Your task to perform on an android device: turn on priority inbox in the gmail app Image 0: 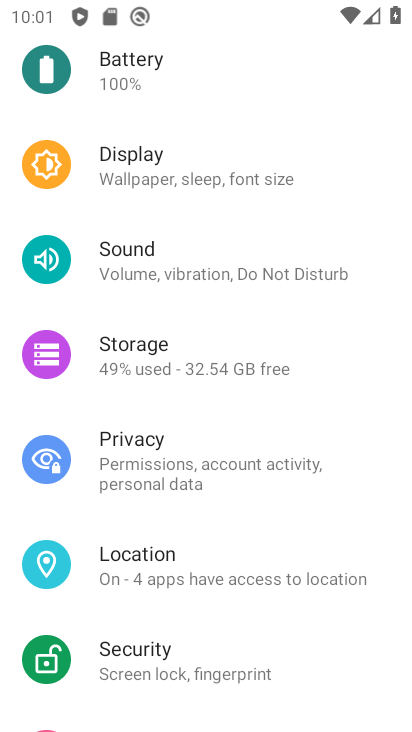
Step 0: press home button
Your task to perform on an android device: turn on priority inbox in the gmail app Image 1: 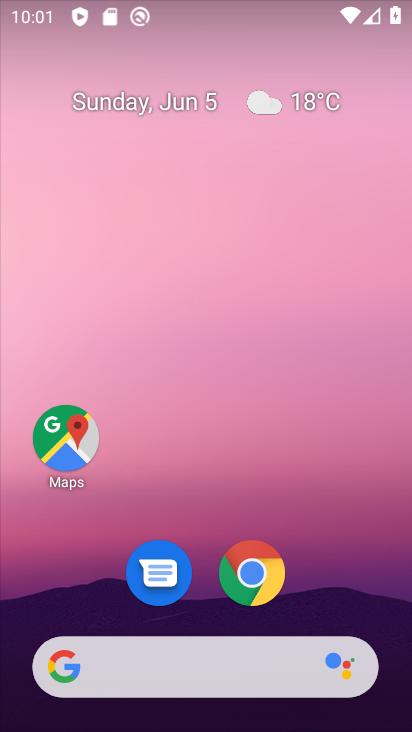
Step 1: drag from (202, 620) to (222, 255)
Your task to perform on an android device: turn on priority inbox in the gmail app Image 2: 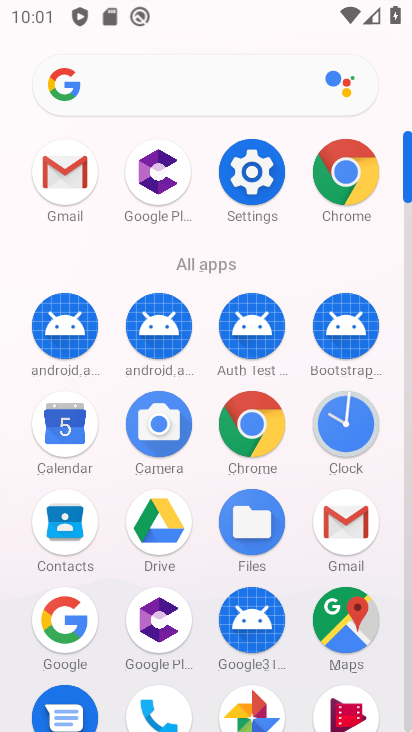
Step 2: click (338, 545)
Your task to perform on an android device: turn on priority inbox in the gmail app Image 3: 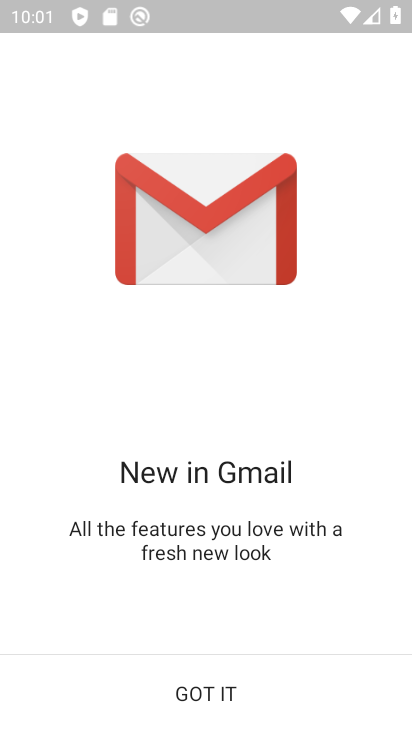
Step 3: click (205, 707)
Your task to perform on an android device: turn on priority inbox in the gmail app Image 4: 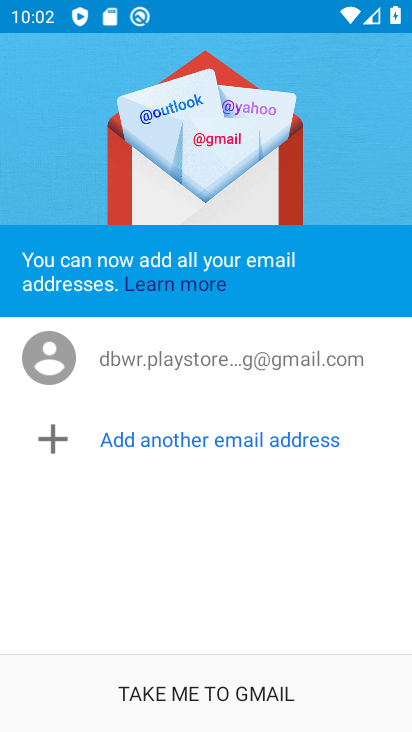
Step 4: click (187, 685)
Your task to perform on an android device: turn on priority inbox in the gmail app Image 5: 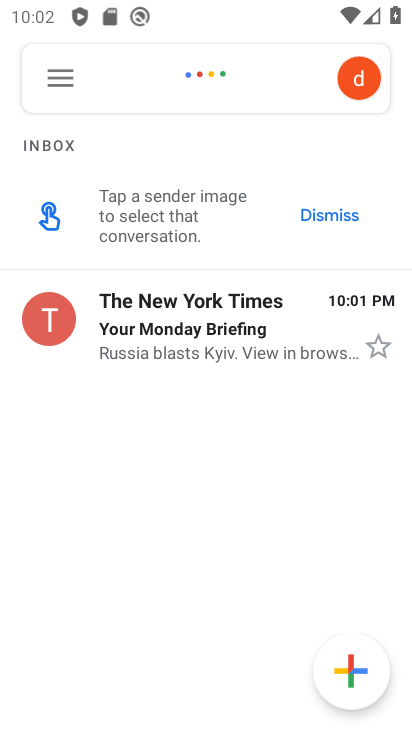
Step 5: click (56, 84)
Your task to perform on an android device: turn on priority inbox in the gmail app Image 6: 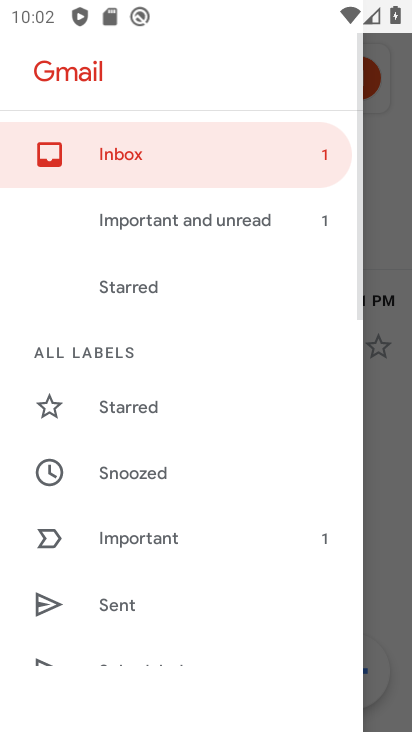
Step 6: drag from (124, 620) to (131, 200)
Your task to perform on an android device: turn on priority inbox in the gmail app Image 7: 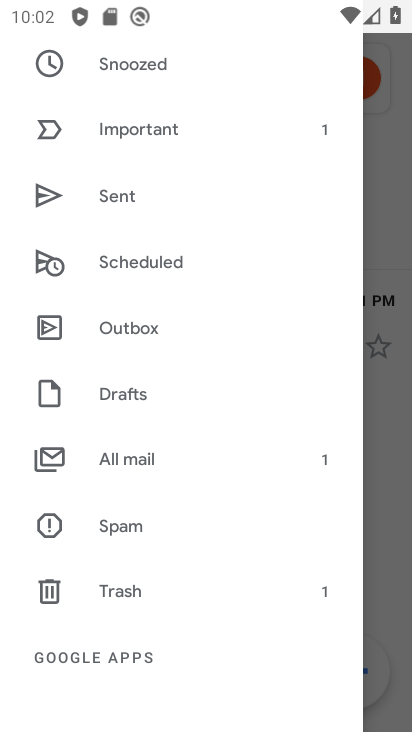
Step 7: drag from (129, 654) to (153, 328)
Your task to perform on an android device: turn on priority inbox in the gmail app Image 8: 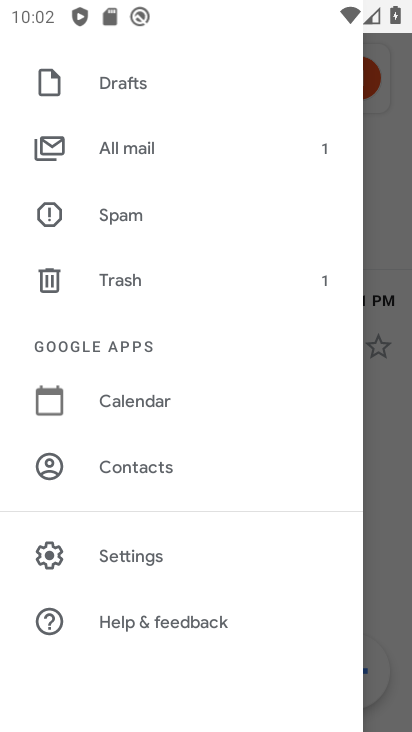
Step 8: click (109, 562)
Your task to perform on an android device: turn on priority inbox in the gmail app Image 9: 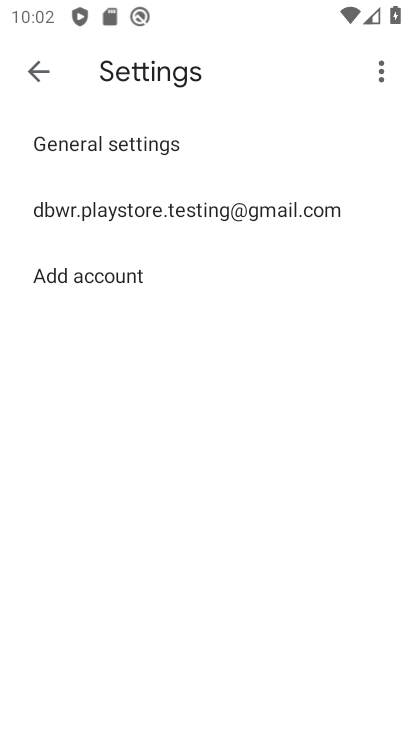
Step 9: click (104, 219)
Your task to perform on an android device: turn on priority inbox in the gmail app Image 10: 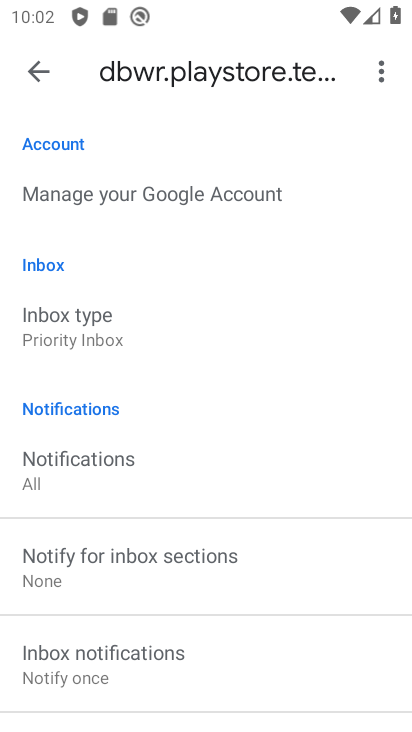
Step 10: task complete